Your task to perform on an android device: install app "Grab" Image 0: 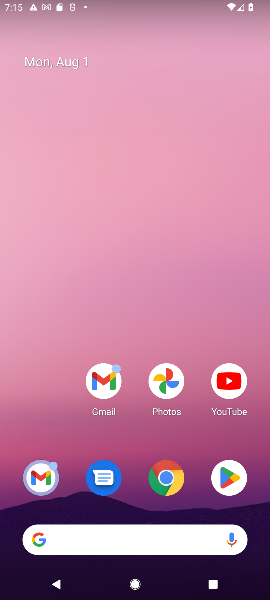
Step 0: press home button
Your task to perform on an android device: install app "Grab" Image 1: 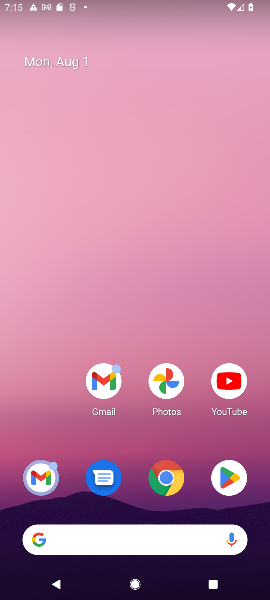
Step 1: click (237, 496)
Your task to perform on an android device: install app "Grab" Image 2: 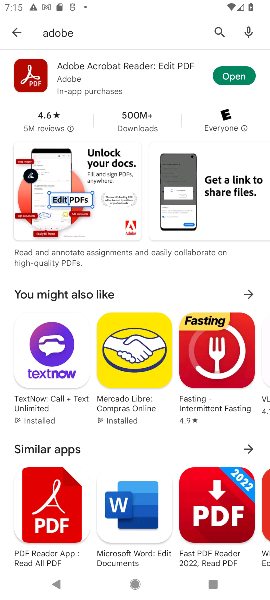
Step 2: click (218, 33)
Your task to perform on an android device: install app "Grab" Image 3: 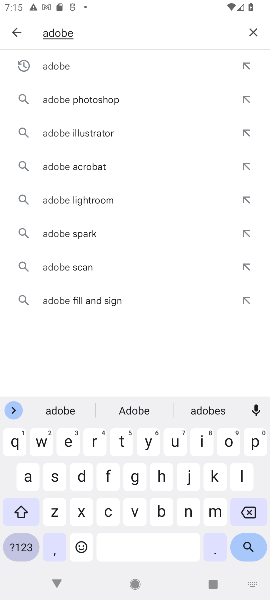
Step 3: click (252, 35)
Your task to perform on an android device: install app "Grab" Image 4: 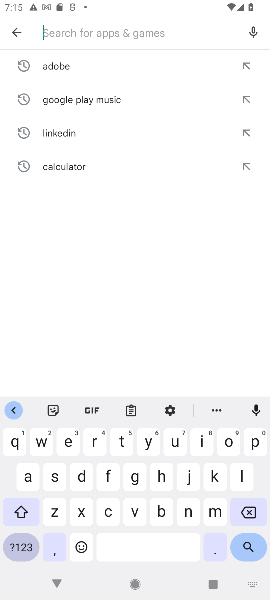
Step 4: click (139, 476)
Your task to perform on an android device: install app "Grab" Image 5: 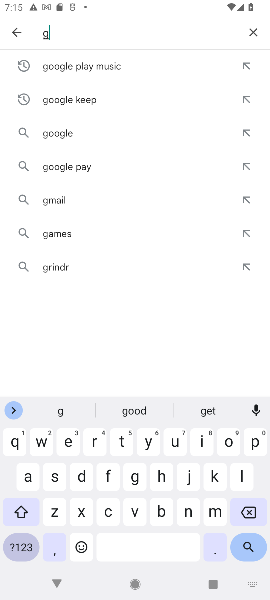
Step 5: click (91, 439)
Your task to perform on an android device: install app "Grab" Image 6: 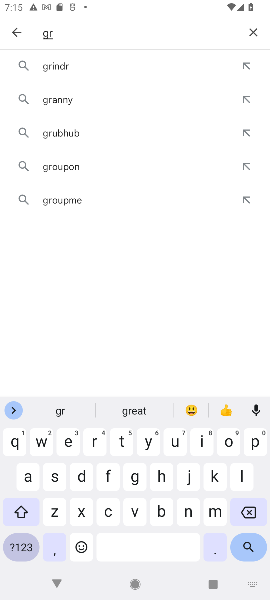
Step 6: click (25, 479)
Your task to perform on an android device: install app "Grab" Image 7: 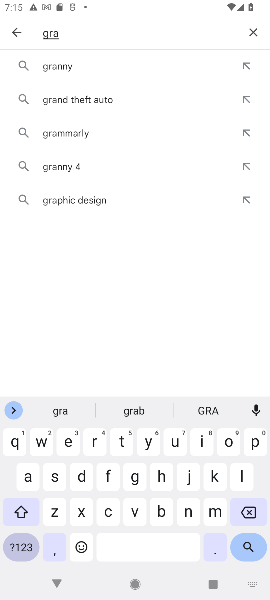
Step 7: click (161, 508)
Your task to perform on an android device: install app "Grab" Image 8: 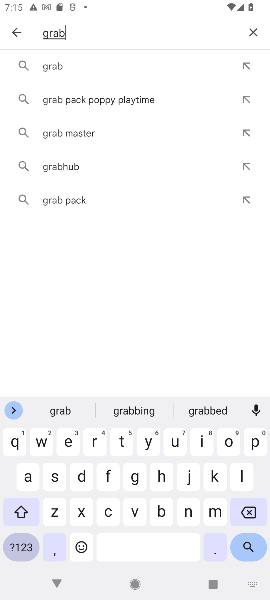
Step 8: click (68, 66)
Your task to perform on an android device: install app "Grab" Image 9: 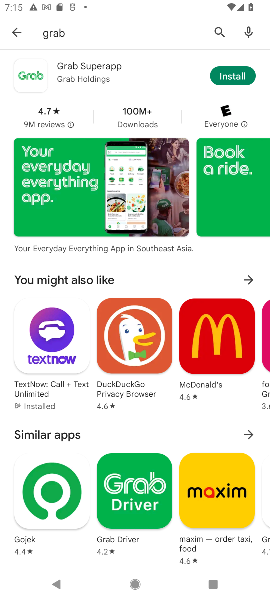
Step 9: click (229, 77)
Your task to perform on an android device: install app "Grab" Image 10: 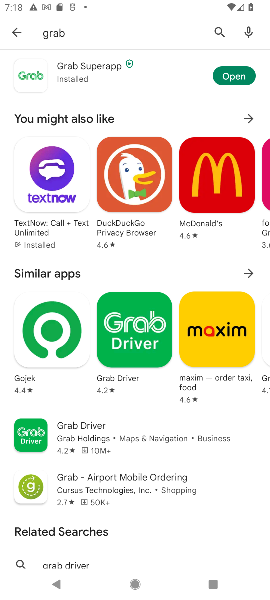
Step 10: task complete